Your task to perform on an android device: find which apps use the phone's location Image 0: 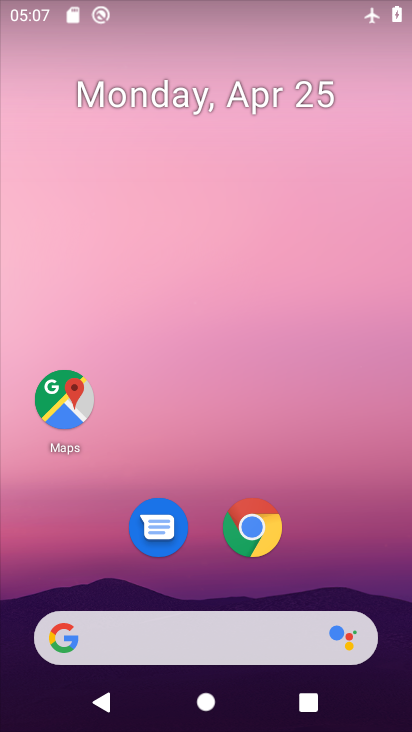
Step 0: drag from (402, 600) to (348, 111)
Your task to perform on an android device: find which apps use the phone's location Image 1: 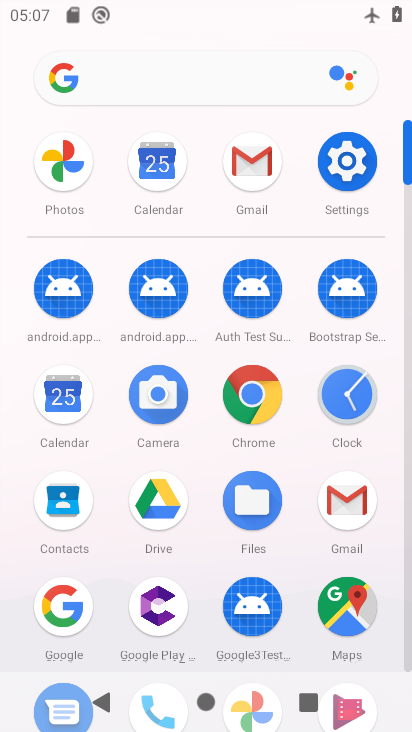
Step 1: click (405, 654)
Your task to perform on an android device: find which apps use the phone's location Image 2: 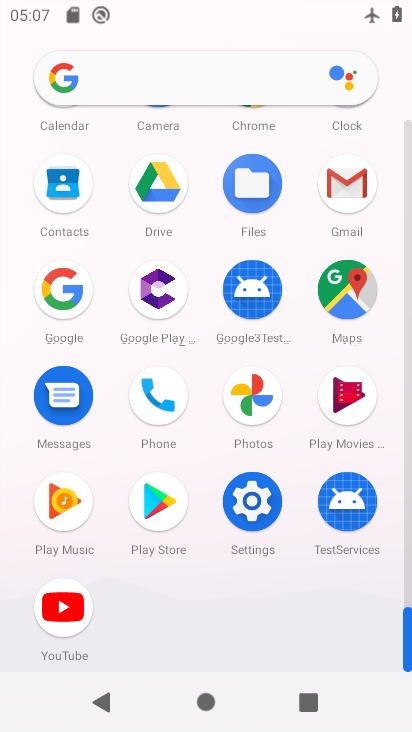
Step 2: click (253, 499)
Your task to perform on an android device: find which apps use the phone's location Image 3: 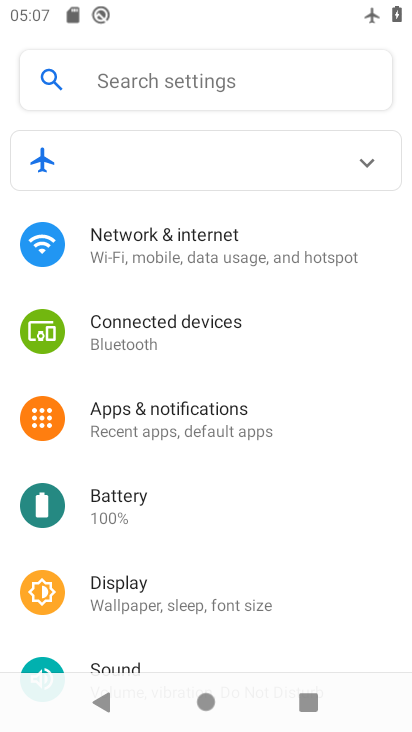
Step 3: drag from (308, 636) to (329, 215)
Your task to perform on an android device: find which apps use the phone's location Image 4: 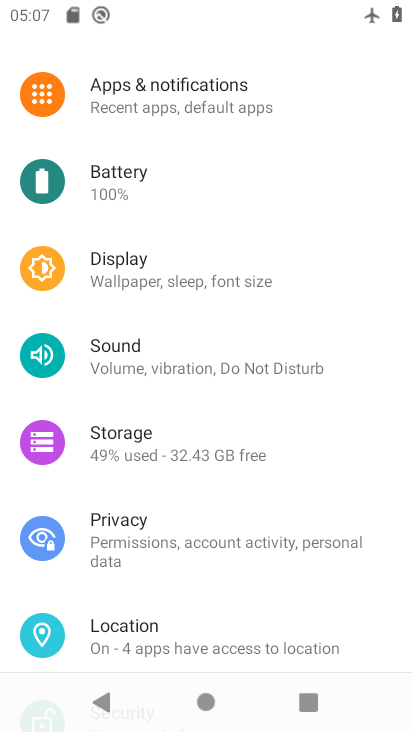
Step 4: drag from (299, 603) to (307, 376)
Your task to perform on an android device: find which apps use the phone's location Image 5: 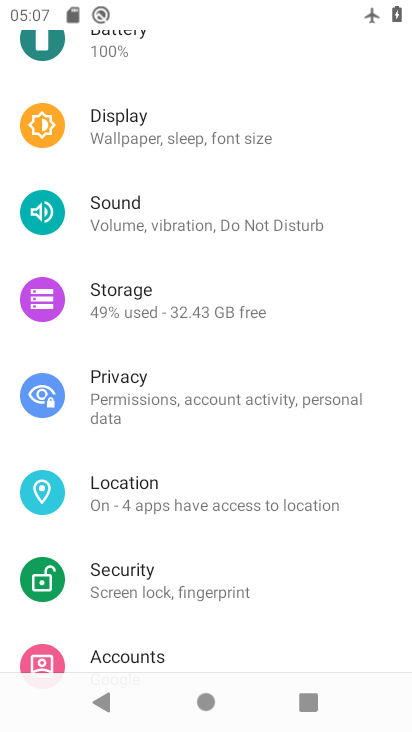
Step 5: drag from (320, 638) to (356, 301)
Your task to perform on an android device: find which apps use the phone's location Image 6: 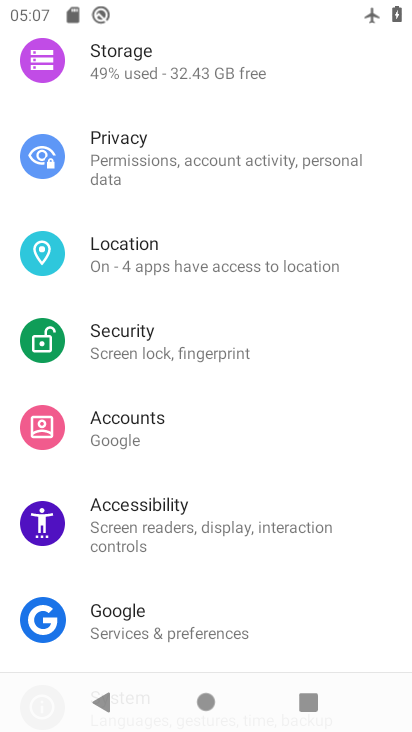
Step 6: click (133, 246)
Your task to perform on an android device: find which apps use the phone's location Image 7: 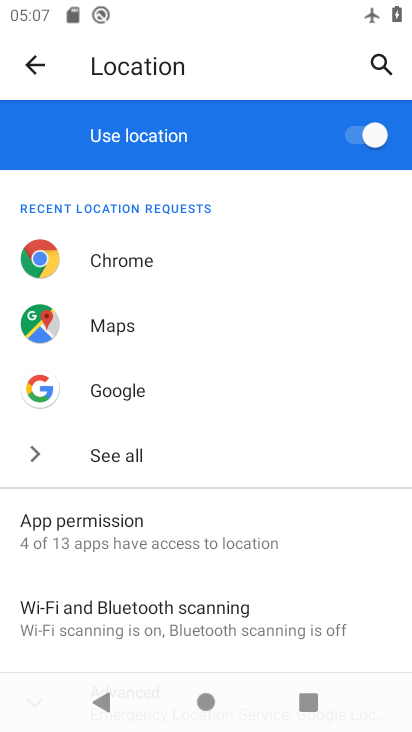
Step 7: drag from (317, 579) to (307, 248)
Your task to perform on an android device: find which apps use the phone's location Image 8: 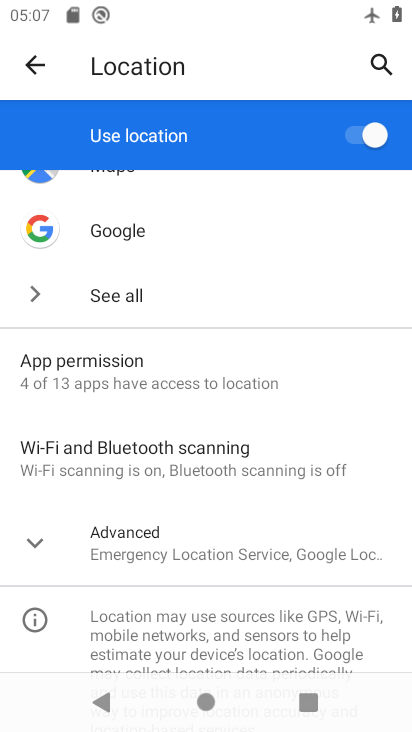
Step 8: click (32, 541)
Your task to perform on an android device: find which apps use the phone's location Image 9: 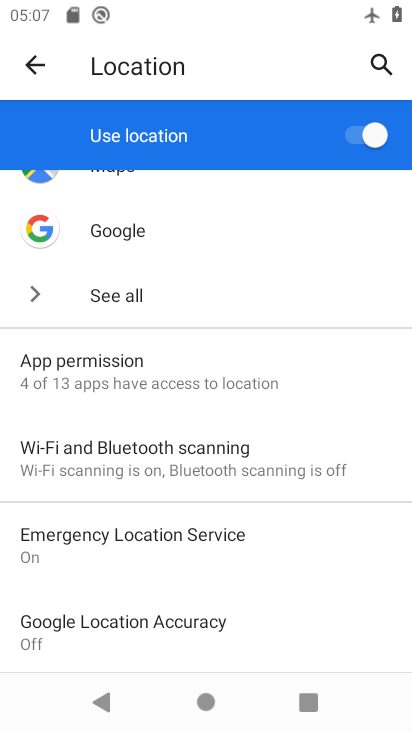
Step 9: drag from (294, 571) to (309, 337)
Your task to perform on an android device: find which apps use the phone's location Image 10: 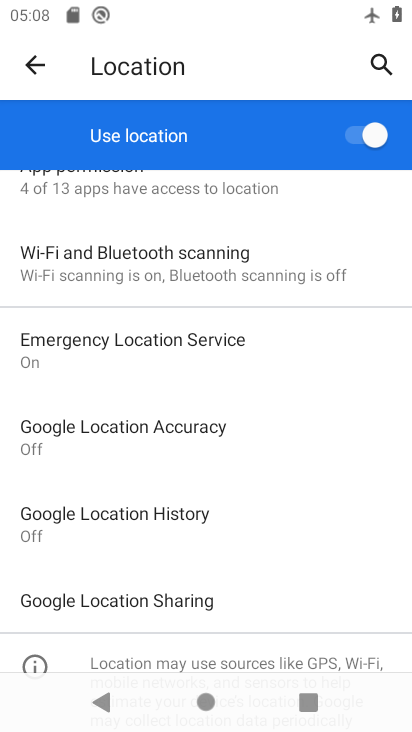
Step 10: drag from (216, 265) to (233, 625)
Your task to perform on an android device: find which apps use the phone's location Image 11: 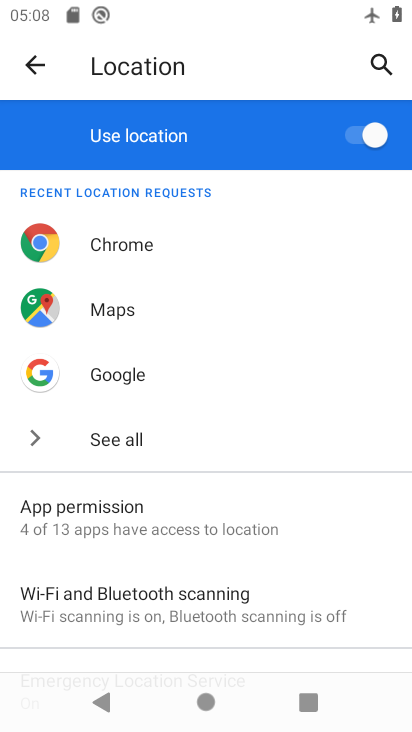
Step 11: click (78, 526)
Your task to perform on an android device: find which apps use the phone's location Image 12: 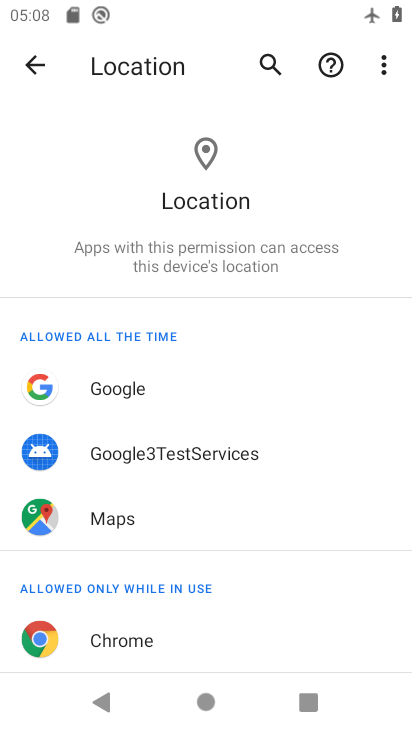
Step 12: drag from (284, 596) to (220, 111)
Your task to perform on an android device: find which apps use the phone's location Image 13: 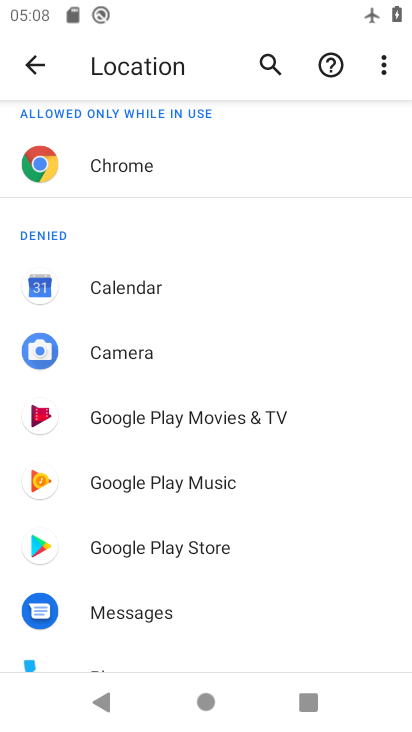
Step 13: drag from (240, 639) to (294, 167)
Your task to perform on an android device: find which apps use the phone's location Image 14: 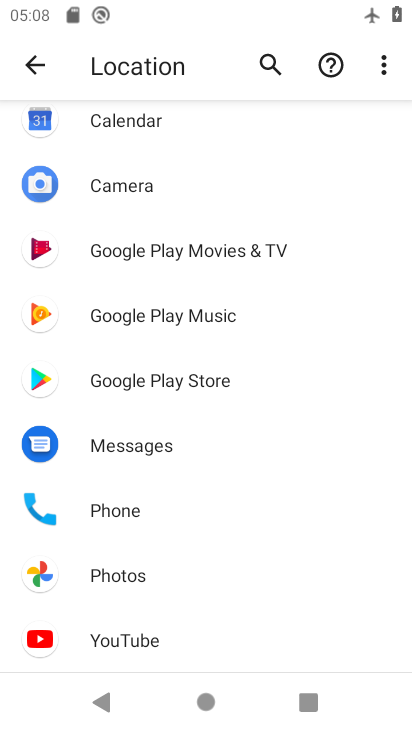
Step 14: click (92, 572)
Your task to perform on an android device: find which apps use the phone's location Image 15: 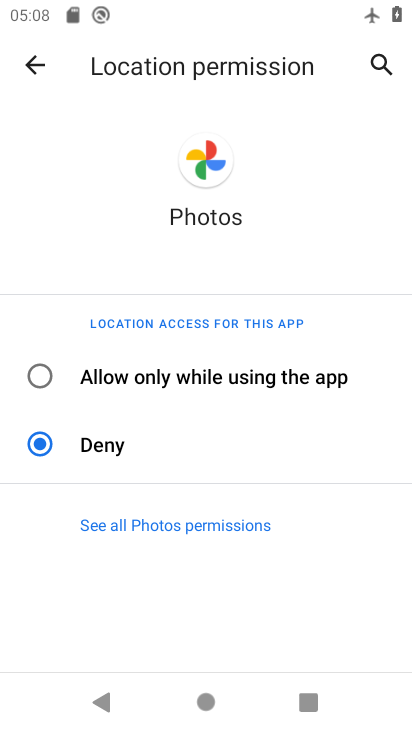
Step 15: task complete